Your task to perform on an android device: Show me the alarms in the clock app Image 0: 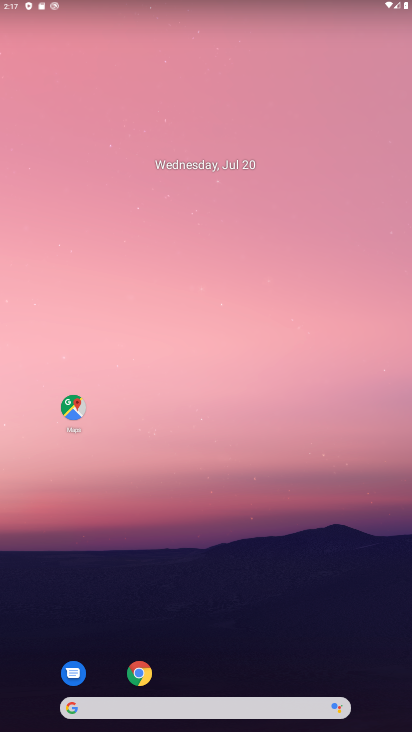
Step 0: drag from (208, 684) to (197, 2)
Your task to perform on an android device: Show me the alarms in the clock app Image 1: 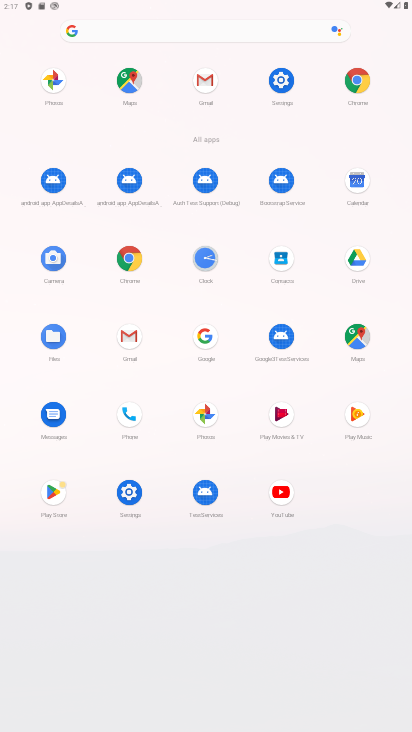
Step 1: click (205, 263)
Your task to perform on an android device: Show me the alarms in the clock app Image 2: 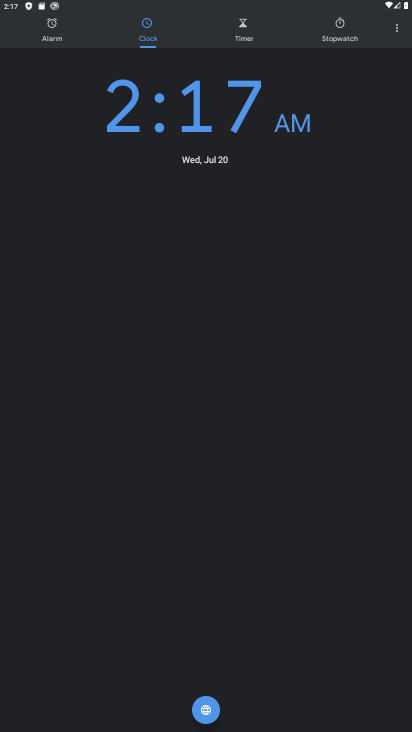
Step 2: click (59, 36)
Your task to perform on an android device: Show me the alarms in the clock app Image 3: 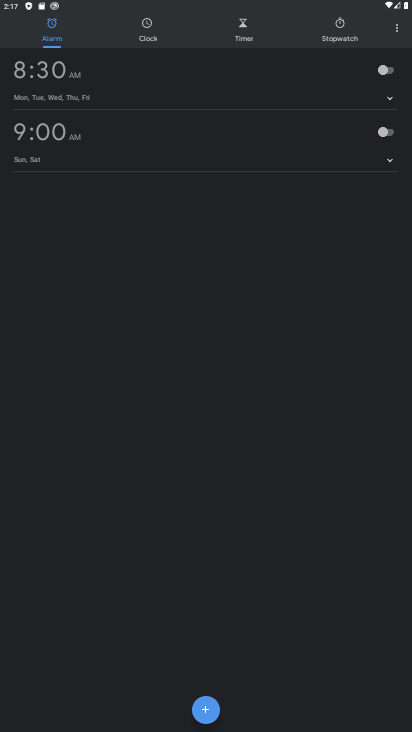
Step 3: task complete